Your task to perform on an android device: Go to display settings Image 0: 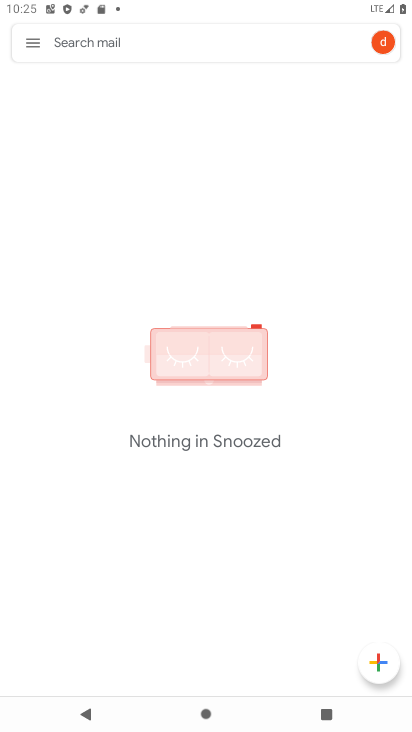
Step 0: press home button
Your task to perform on an android device: Go to display settings Image 1: 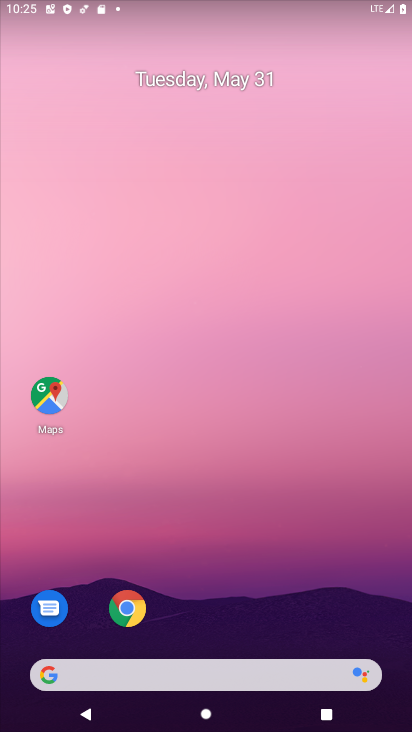
Step 1: drag from (229, 647) to (308, 2)
Your task to perform on an android device: Go to display settings Image 2: 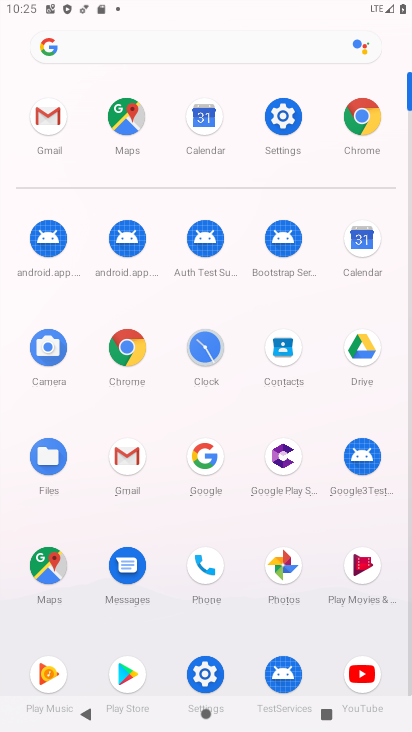
Step 2: click (291, 121)
Your task to perform on an android device: Go to display settings Image 3: 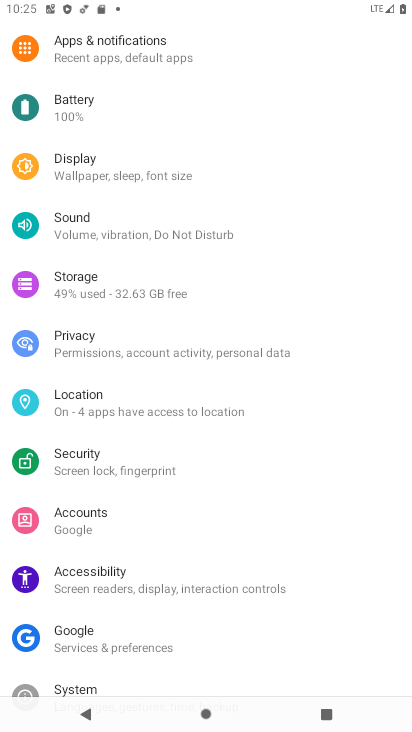
Step 3: click (69, 167)
Your task to perform on an android device: Go to display settings Image 4: 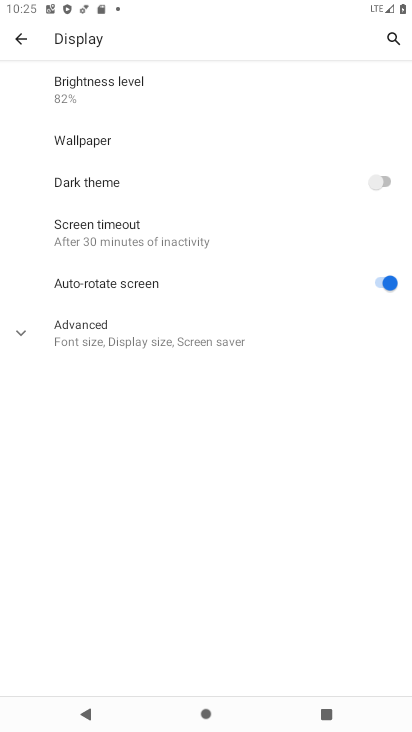
Step 4: task complete